Your task to perform on an android device: see sites visited before in the chrome app Image 0: 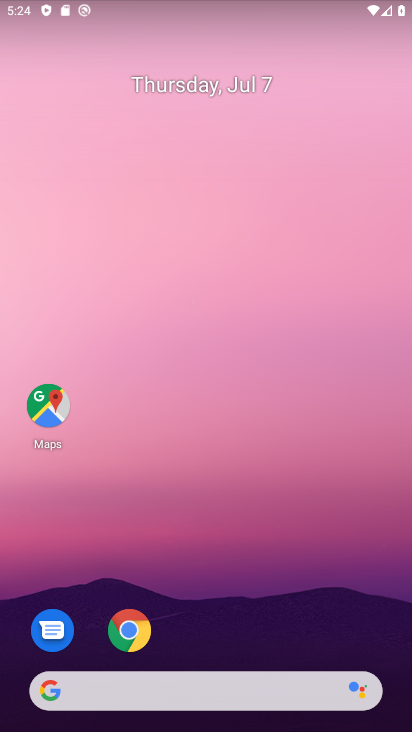
Step 0: press home button
Your task to perform on an android device: see sites visited before in the chrome app Image 1: 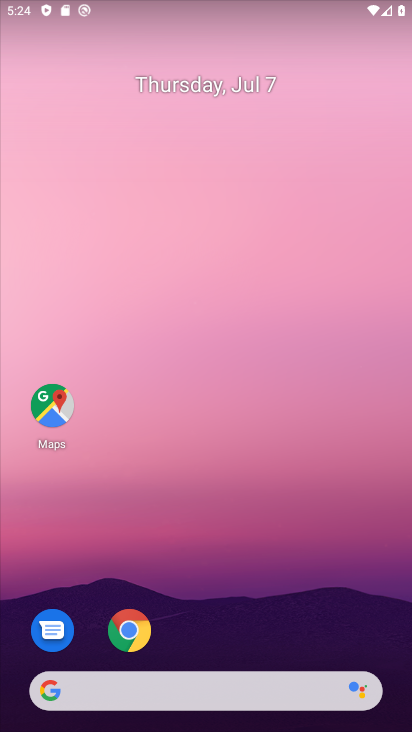
Step 1: drag from (239, 651) to (271, 290)
Your task to perform on an android device: see sites visited before in the chrome app Image 2: 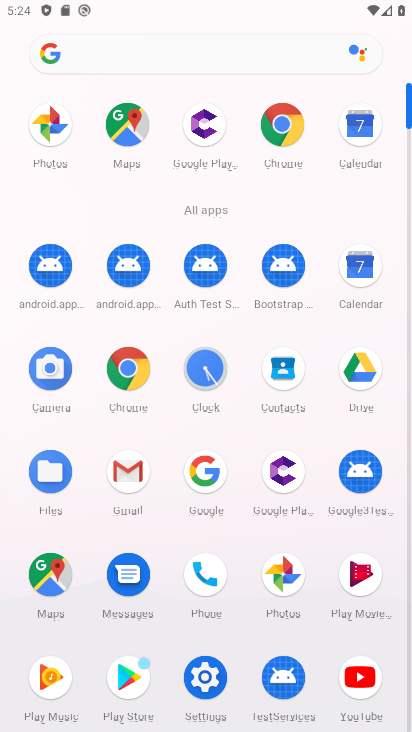
Step 2: click (288, 130)
Your task to perform on an android device: see sites visited before in the chrome app Image 3: 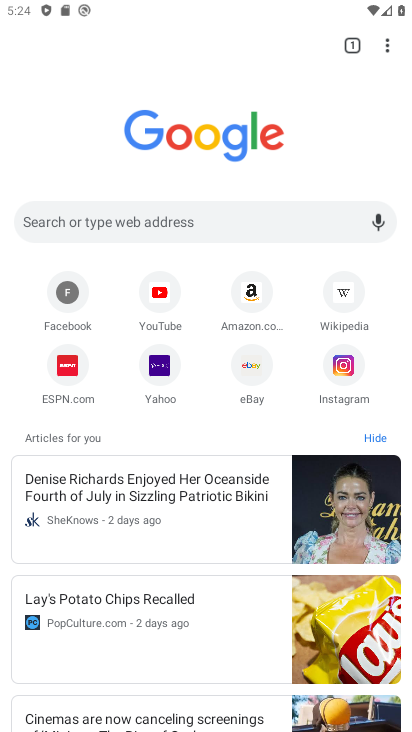
Step 3: task complete